Your task to perform on an android device: Open Google Maps Image 0: 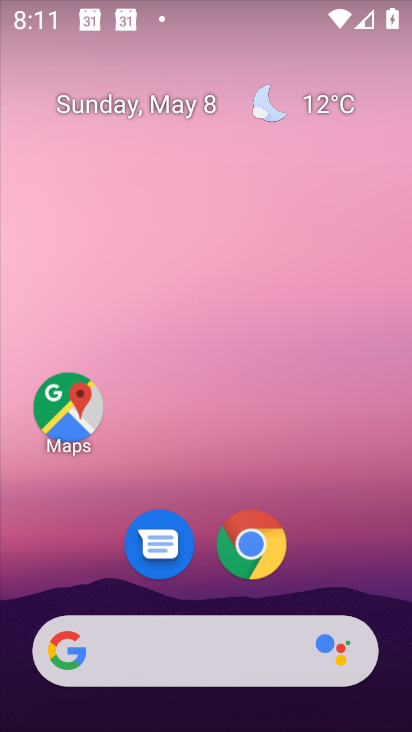
Step 0: click (74, 420)
Your task to perform on an android device: Open Google Maps Image 1: 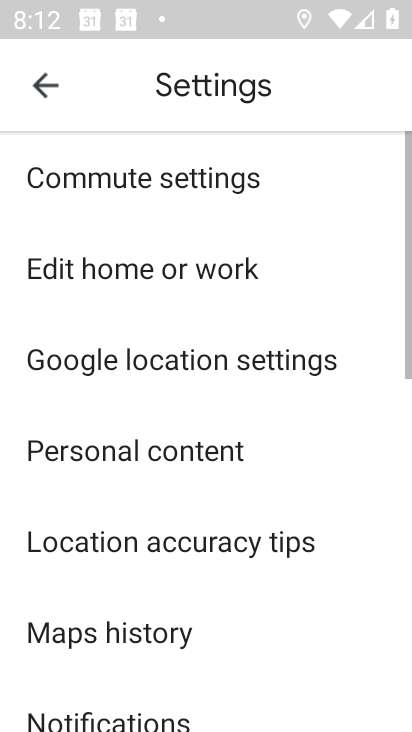
Step 1: click (51, 76)
Your task to perform on an android device: Open Google Maps Image 2: 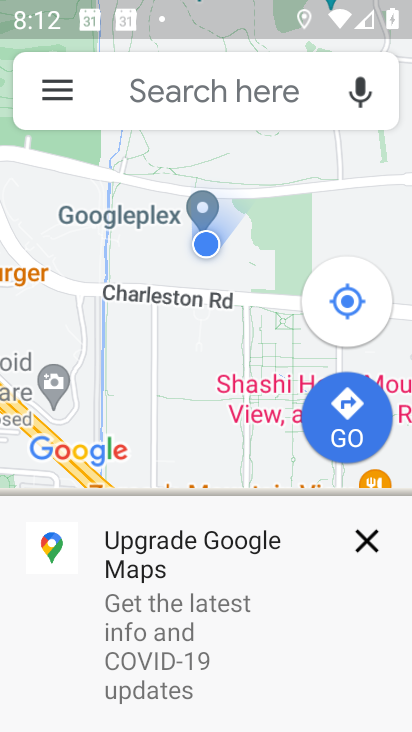
Step 2: click (364, 536)
Your task to perform on an android device: Open Google Maps Image 3: 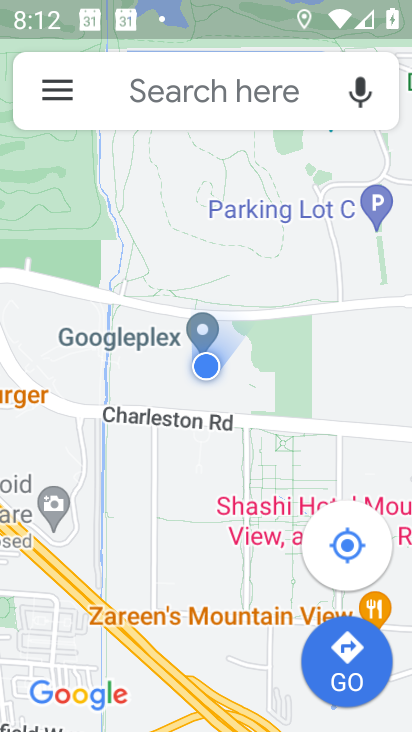
Step 3: task complete